Your task to perform on an android device: What's the weather going to be tomorrow? Image 0: 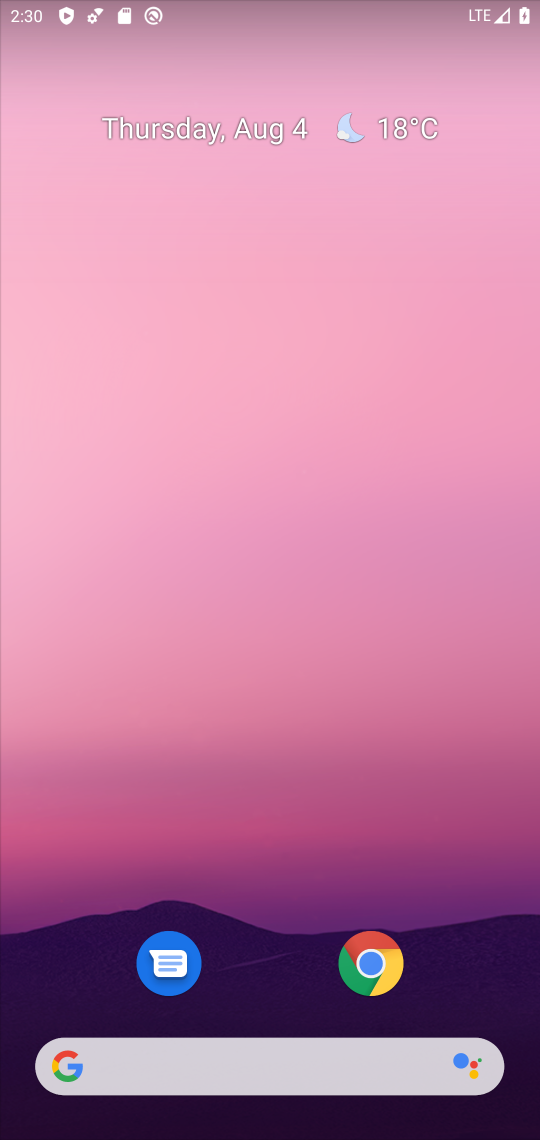
Step 0: click (377, 986)
Your task to perform on an android device: What's the weather going to be tomorrow? Image 1: 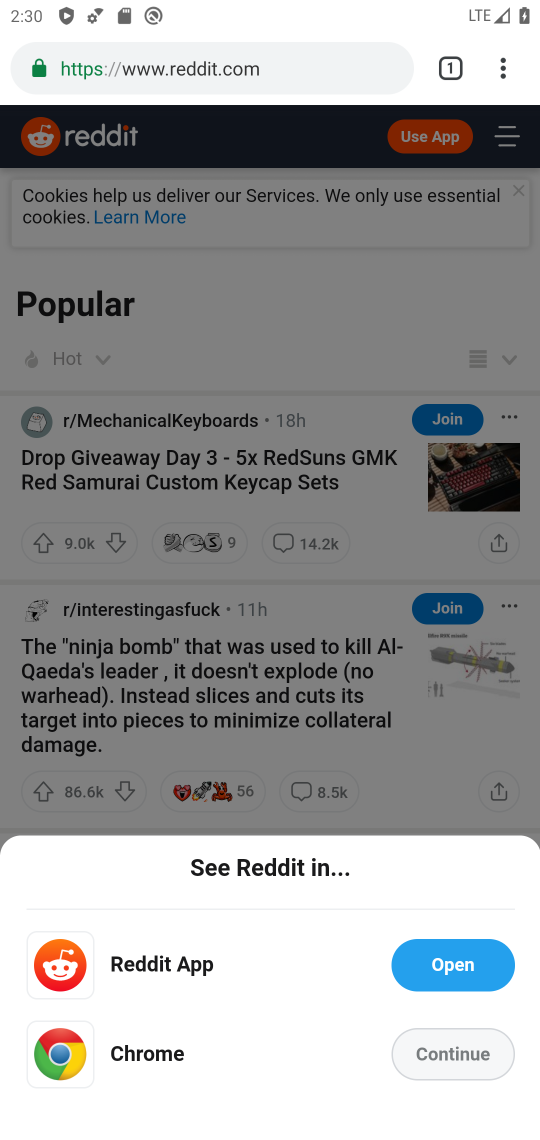
Step 1: click (204, 75)
Your task to perform on an android device: What's the weather going to be tomorrow? Image 2: 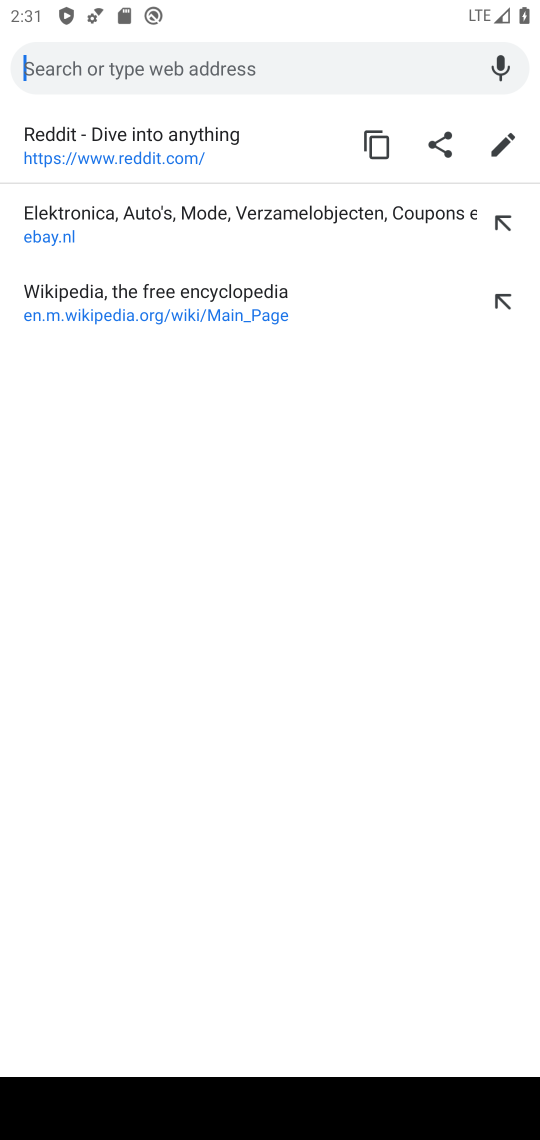
Step 2: type "weather tomorrow"
Your task to perform on an android device: What's the weather going to be tomorrow? Image 3: 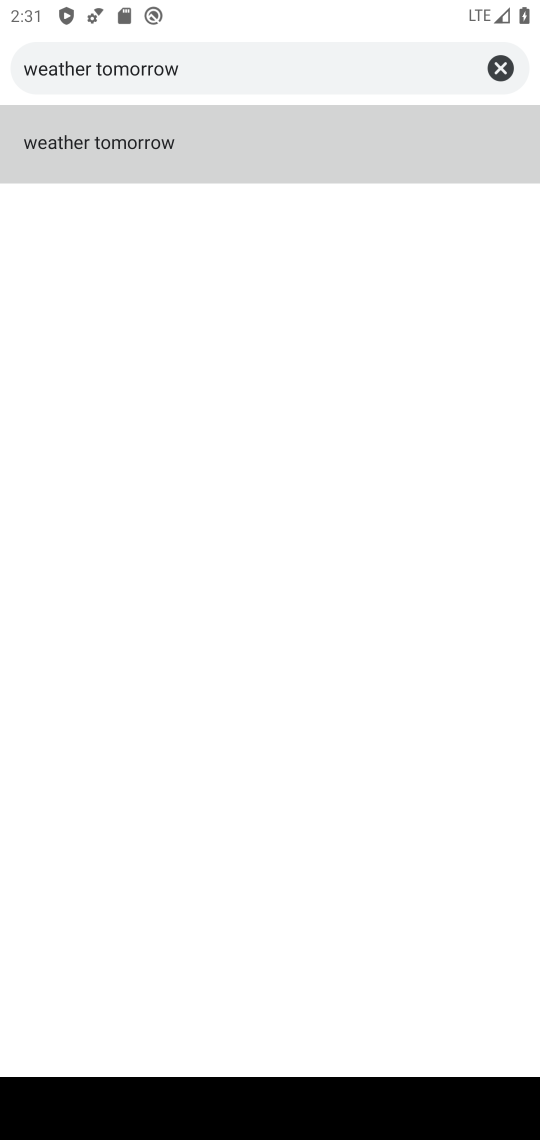
Step 3: click (211, 136)
Your task to perform on an android device: What's the weather going to be tomorrow? Image 4: 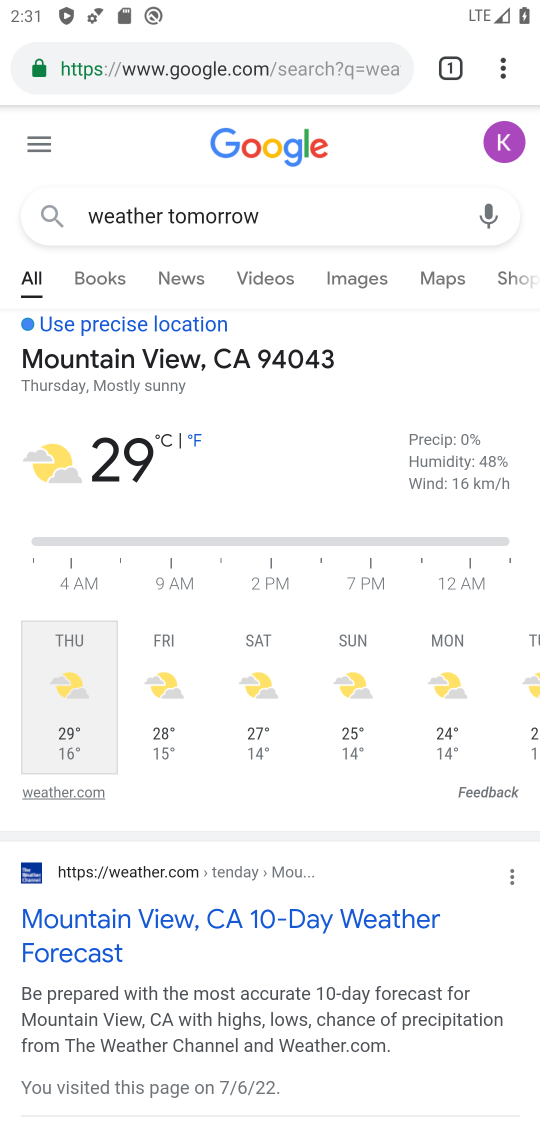
Step 4: task complete